Your task to perform on an android device: create a new album in the google photos Image 0: 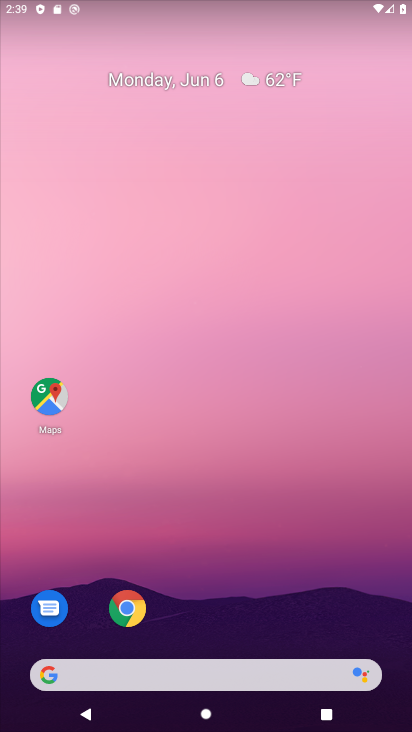
Step 0: drag from (296, 631) to (276, 82)
Your task to perform on an android device: create a new album in the google photos Image 1: 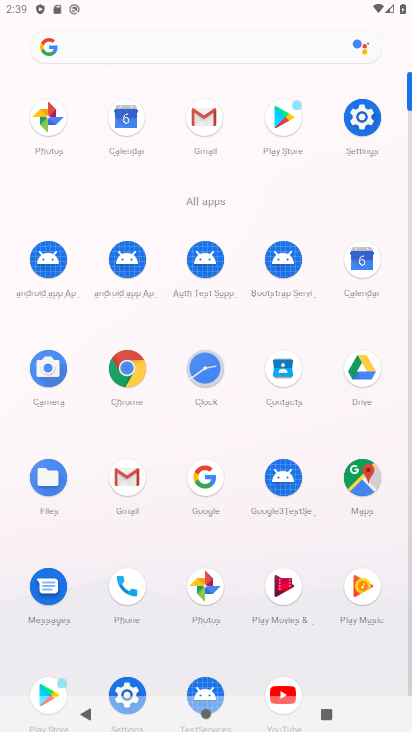
Step 1: click (202, 576)
Your task to perform on an android device: create a new album in the google photos Image 2: 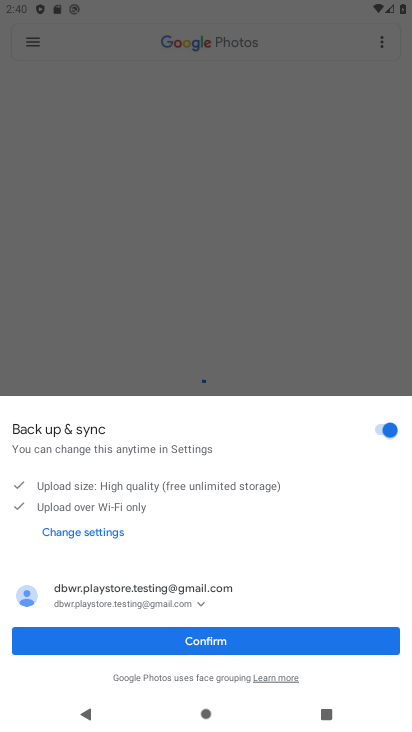
Step 2: click (96, 642)
Your task to perform on an android device: create a new album in the google photos Image 3: 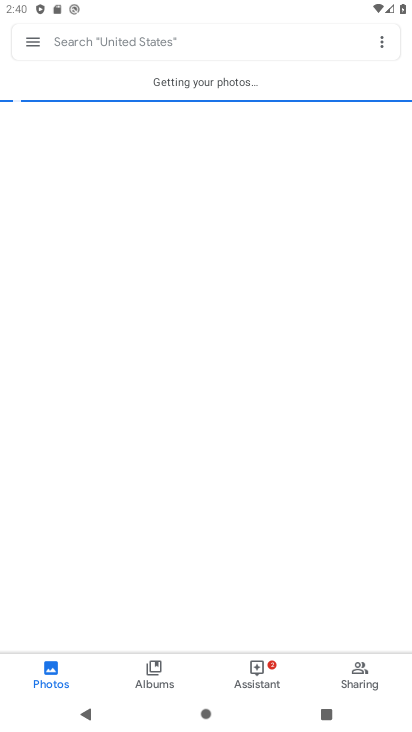
Step 3: click (170, 665)
Your task to perform on an android device: create a new album in the google photos Image 4: 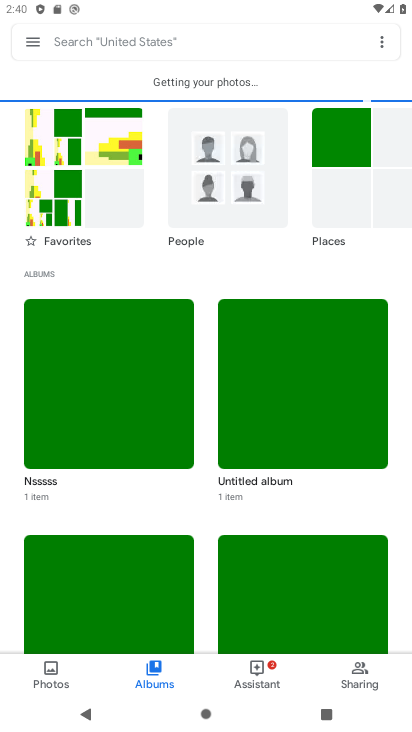
Step 4: click (385, 45)
Your task to perform on an android device: create a new album in the google photos Image 5: 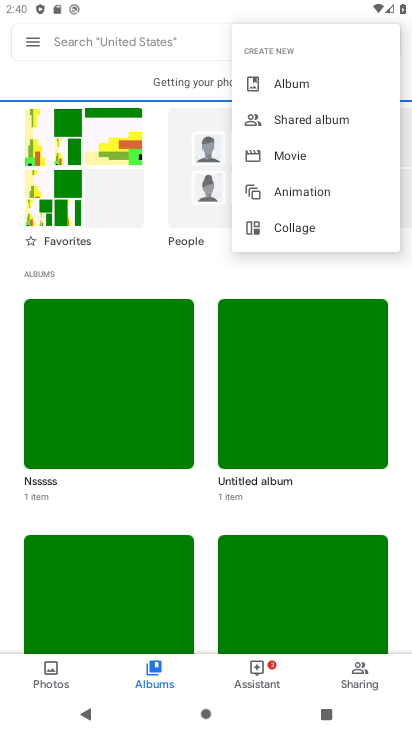
Step 5: click (303, 89)
Your task to perform on an android device: create a new album in the google photos Image 6: 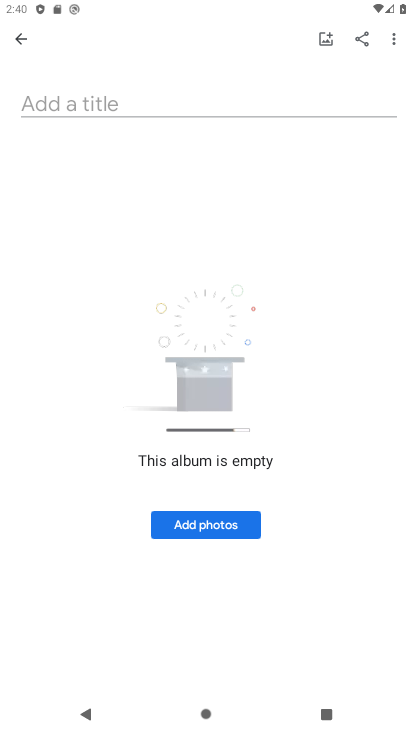
Step 6: click (117, 105)
Your task to perform on an android device: create a new album in the google photos Image 7: 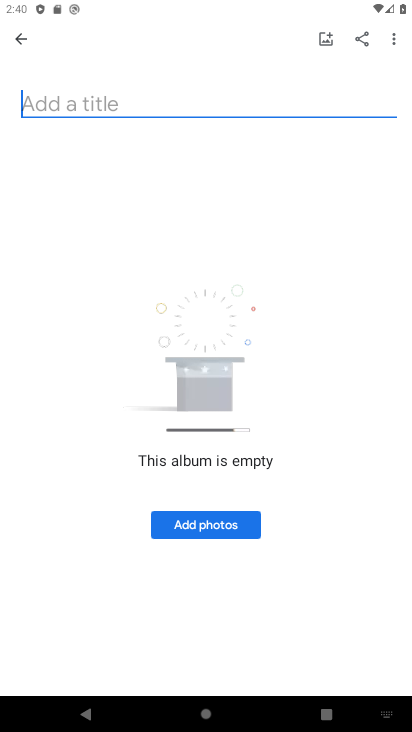
Step 7: type "sfe"
Your task to perform on an android device: create a new album in the google photos Image 8: 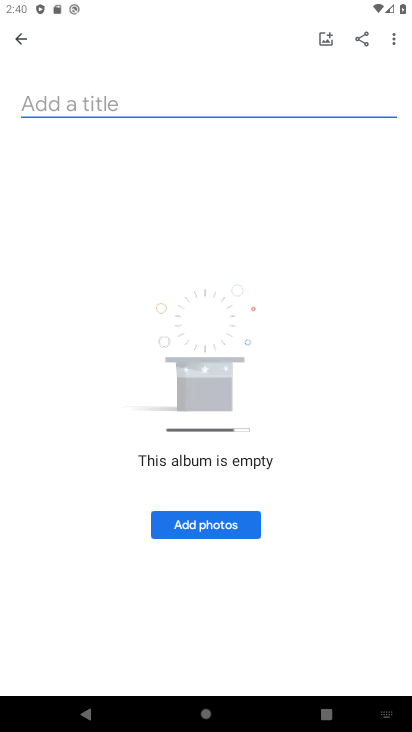
Step 8: click (247, 517)
Your task to perform on an android device: create a new album in the google photos Image 9: 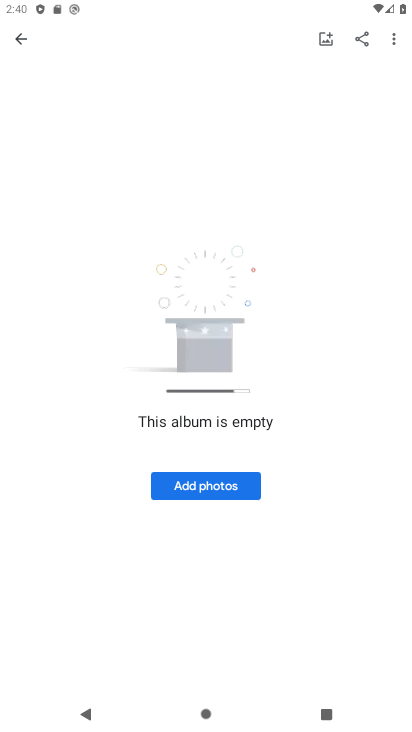
Step 9: click (191, 485)
Your task to perform on an android device: create a new album in the google photos Image 10: 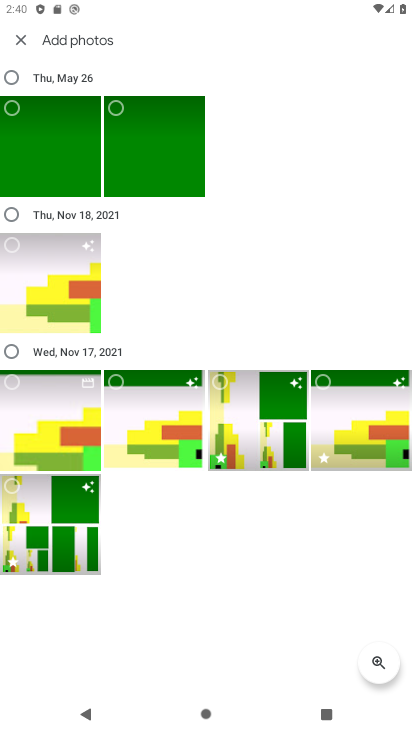
Step 10: click (23, 154)
Your task to perform on an android device: create a new album in the google photos Image 11: 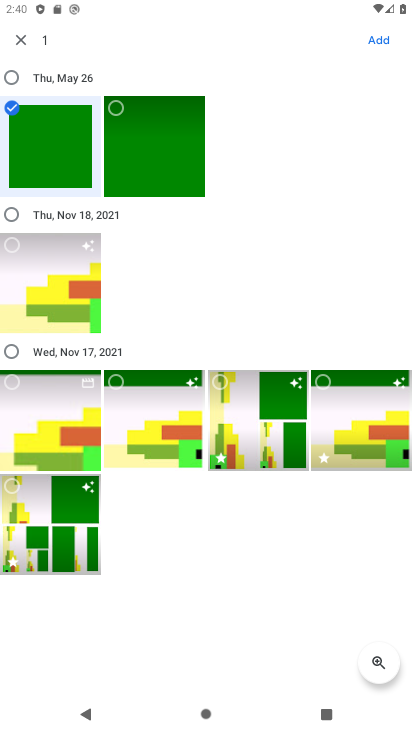
Step 11: click (376, 38)
Your task to perform on an android device: create a new album in the google photos Image 12: 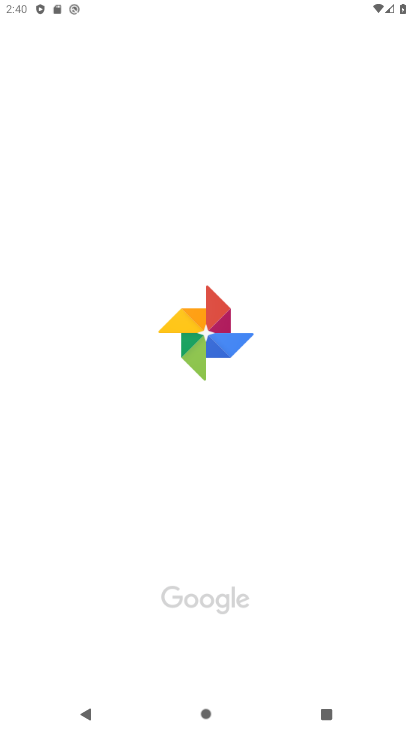
Step 12: task complete